Your task to perform on an android device: turn on showing notifications on the lock screen Image 0: 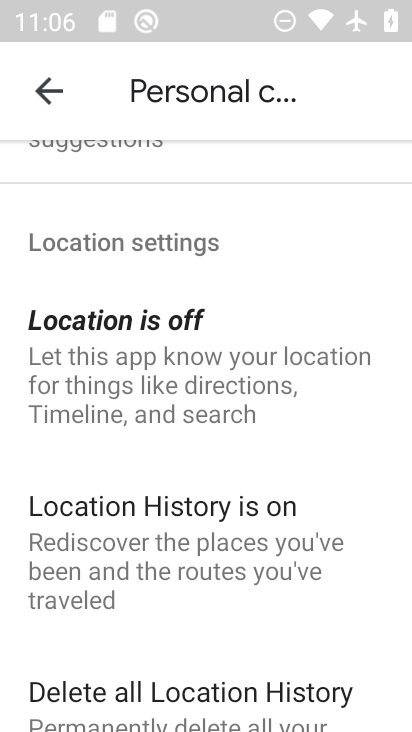
Step 0: press home button
Your task to perform on an android device: turn on showing notifications on the lock screen Image 1: 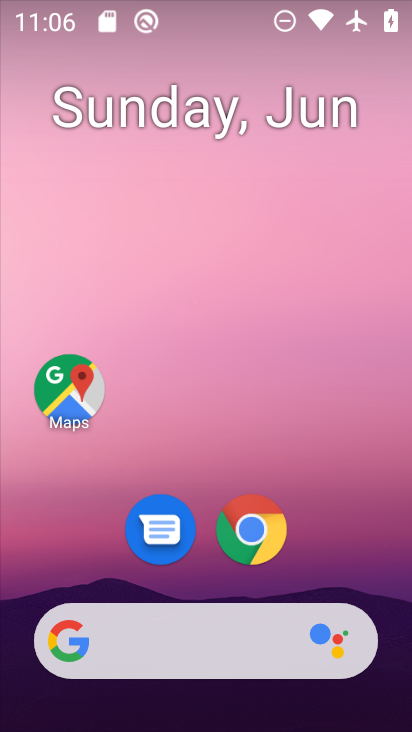
Step 1: drag from (394, 639) to (334, 58)
Your task to perform on an android device: turn on showing notifications on the lock screen Image 2: 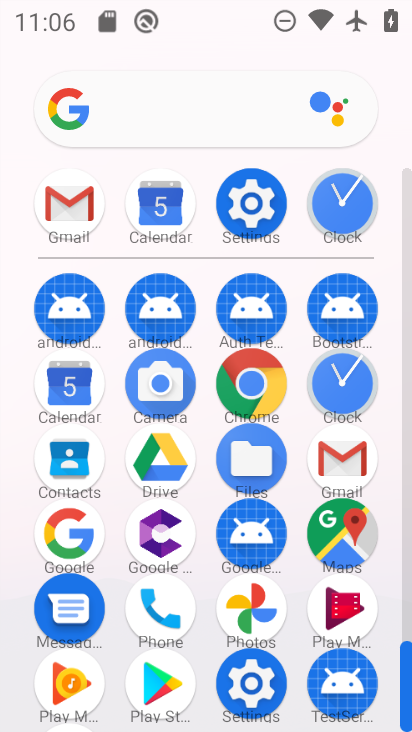
Step 2: click (249, 685)
Your task to perform on an android device: turn on showing notifications on the lock screen Image 3: 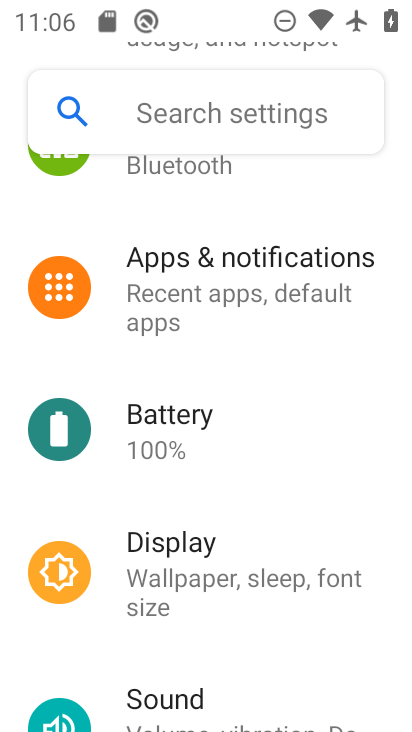
Step 3: click (219, 284)
Your task to perform on an android device: turn on showing notifications on the lock screen Image 4: 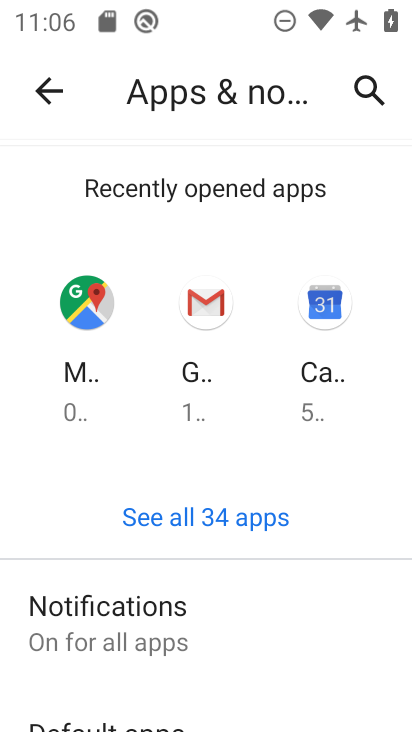
Step 4: click (94, 603)
Your task to perform on an android device: turn on showing notifications on the lock screen Image 5: 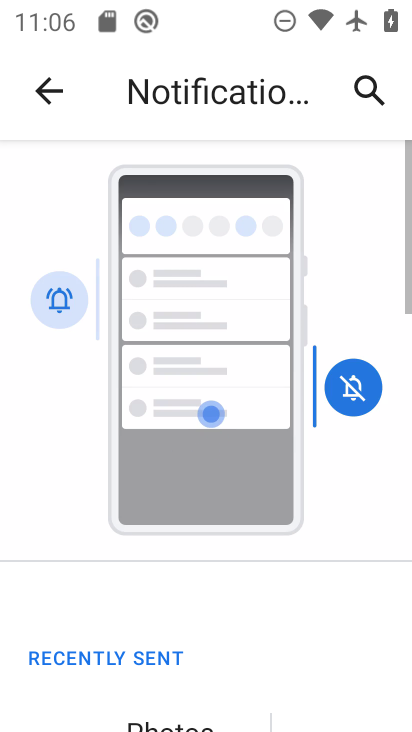
Step 5: drag from (300, 656) to (223, 242)
Your task to perform on an android device: turn on showing notifications on the lock screen Image 6: 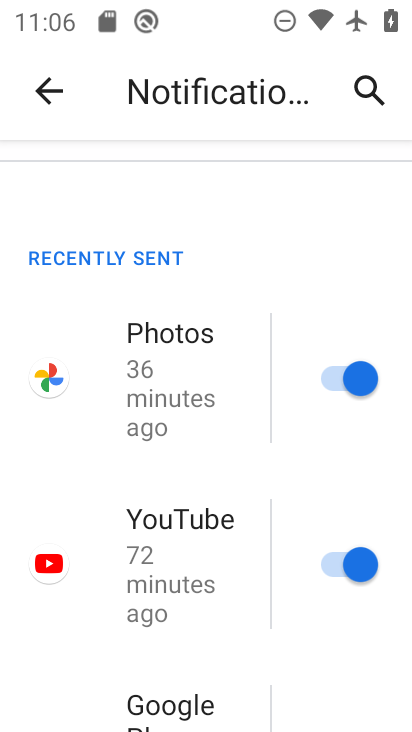
Step 6: drag from (277, 697) to (138, 65)
Your task to perform on an android device: turn on showing notifications on the lock screen Image 7: 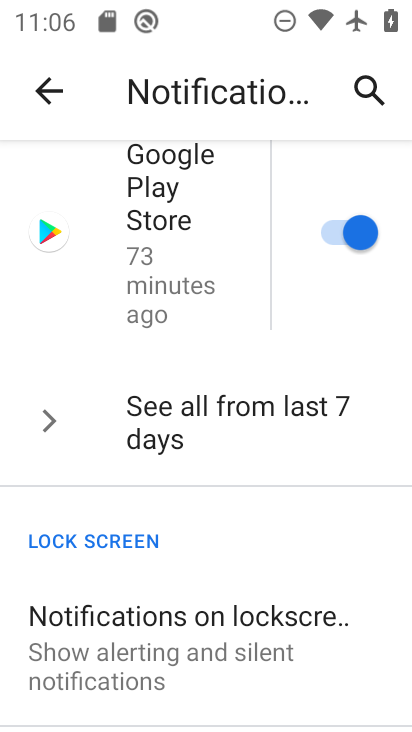
Step 7: click (175, 618)
Your task to perform on an android device: turn on showing notifications on the lock screen Image 8: 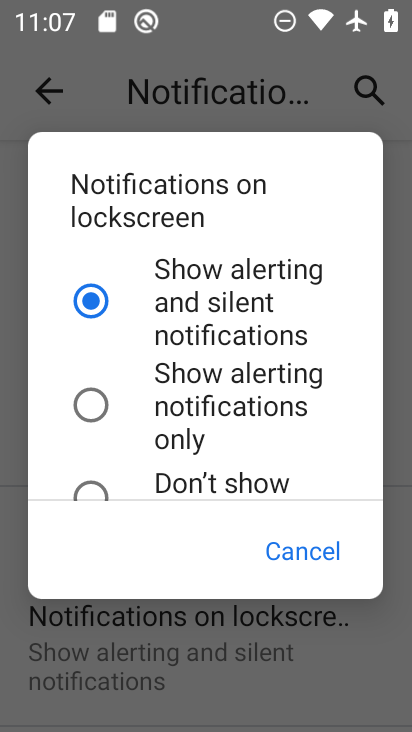
Step 8: task complete